Your task to perform on an android device: change notifications settings Image 0: 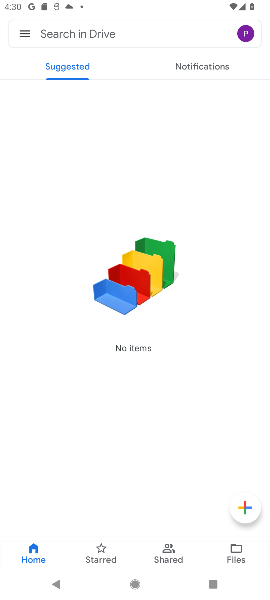
Step 0: press back button
Your task to perform on an android device: change notifications settings Image 1: 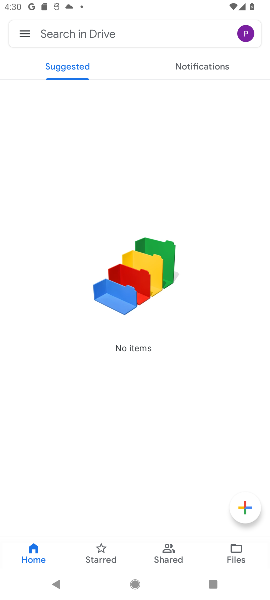
Step 1: press back button
Your task to perform on an android device: change notifications settings Image 2: 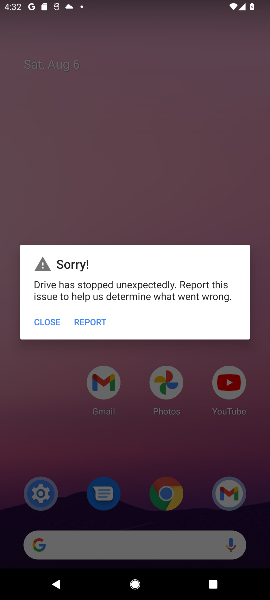
Step 2: click (52, 319)
Your task to perform on an android device: change notifications settings Image 3: 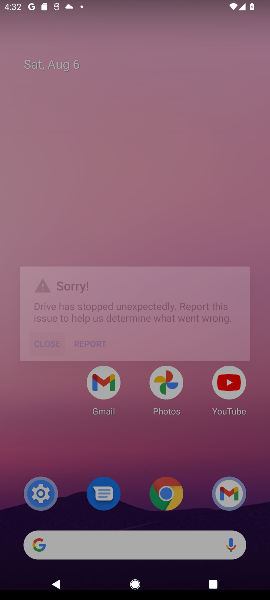
Step 3: press back button
Your task to perform on an android device: change notifications settings Image 4: 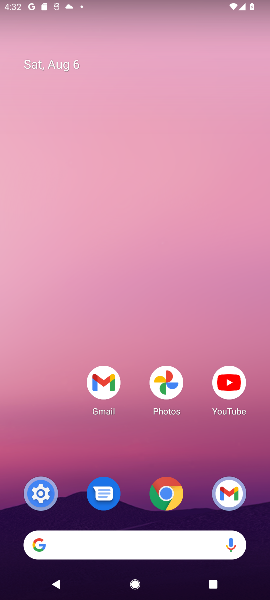
Step 4: press back button
Your task to perform on an android device: change notifications settings Image 5: 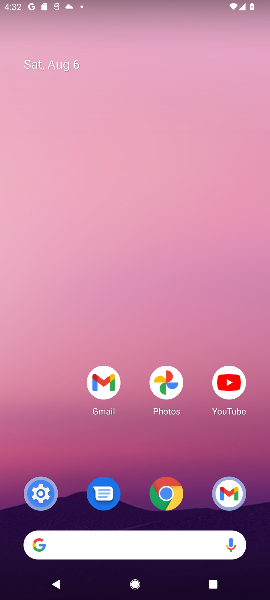
Step 5: press home button
Your task to perform on an android device: change notifications settings Image 6: 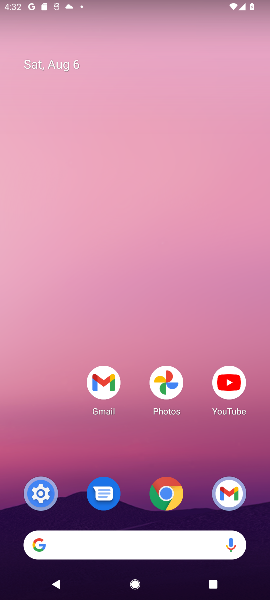
Step 6: drag from (135, 349) to (132, 50)
Your task to perform on an android device: change notifications settings Image 7: 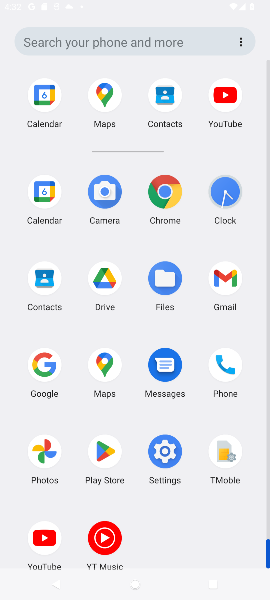
Step 7: drag from (124, 461) to (124, 17)
Your task to perform on an android device: change notifications settings Image 8: 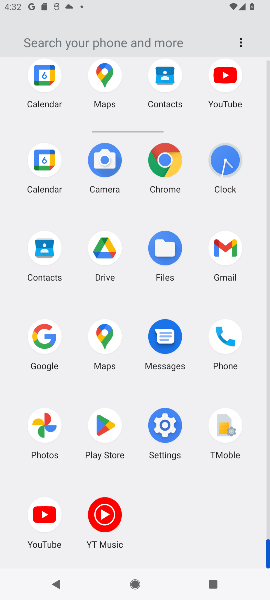
Step 8: drag from (137, 306) to (137, 120)
Your task to perform on an android device: change notifications settings Image 9: 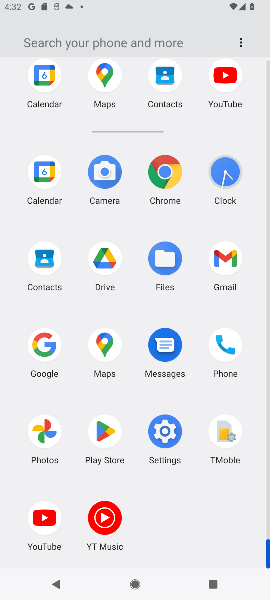
Step 9: click (156, 433)
Your task to perform on an android device: change notifications settings Image 10: 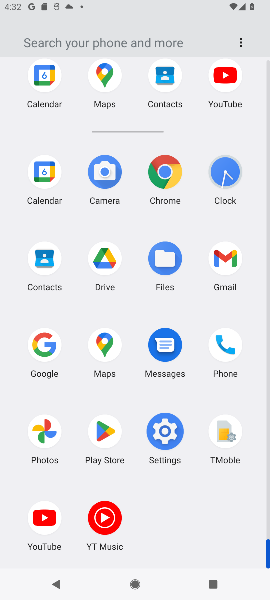
Step 10: click (156, 433)
Your task to perform on an android device: change notifications settings Image 11: 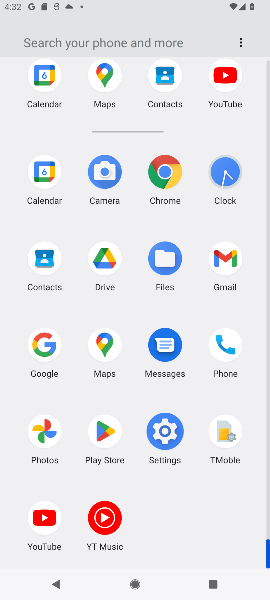
Step 11: click (156, 433)
Your task to perform on an android device: change notifications settings Image 12: 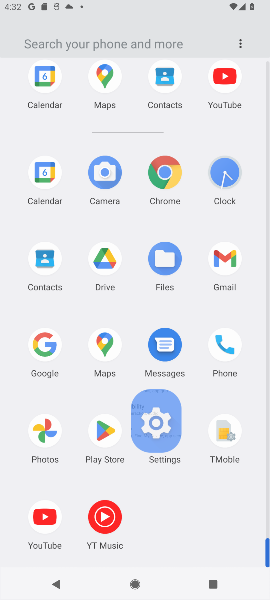
Step 12: click (157, 433)
Your task to perform on an android device: change notifications settings Image 13: 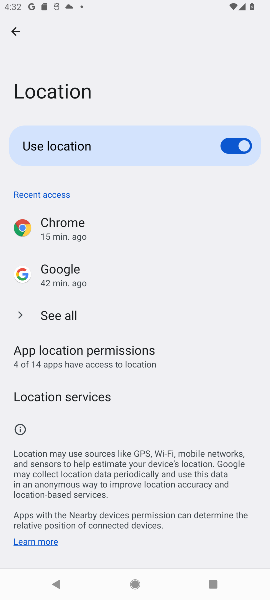
Step 13: click (17, 36)
Your task to perform on an android device: change notifications settings Image 14: 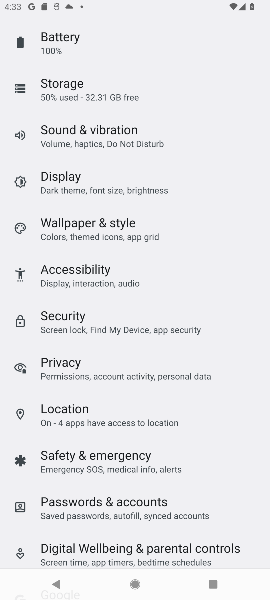
Step 14: drag from (81, 101) to (138, 450)
Your task to perform on an android device: change notifications settings Image 15: 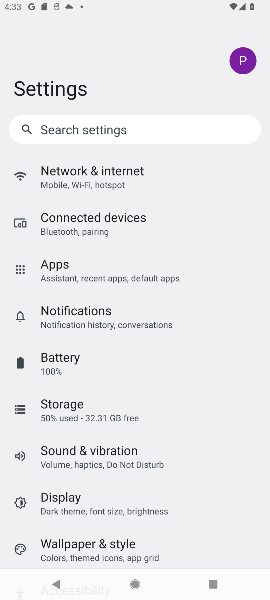
Step 15: drag from (127, 130) to (223, 284)
Your task to perform on an android device: change notifications settings Image 16: 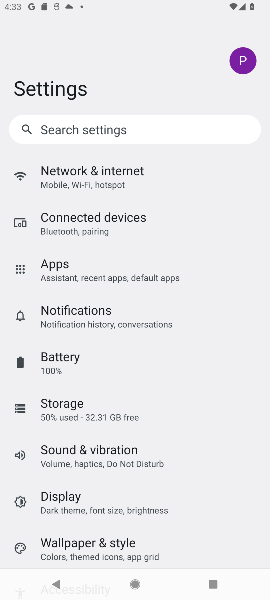
Step 16: click (74, 323)
Your task to perform on an android device: change notifications settings Image 17: 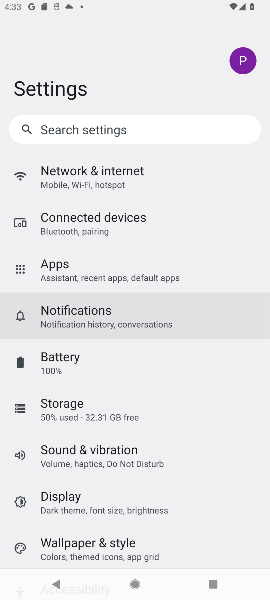
Step 17: click (82, 314)
Your task to perform on an android device: change notifications settings Image 18: 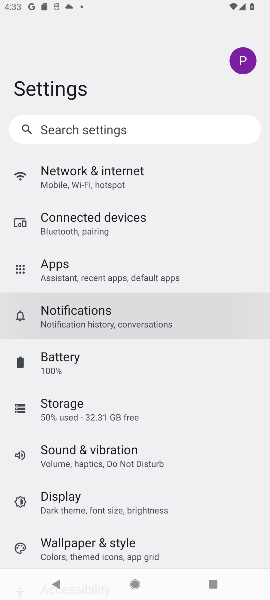
Step 18: click (82, 314)
Your task to perform on an android device: change notifications settings Image 19: 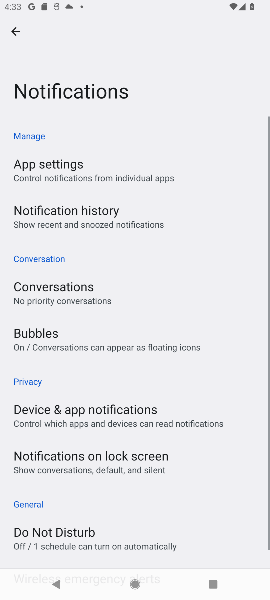
Step 19: click (84, 314)
Your task to perform on an android device: change notifications settings Image 20: 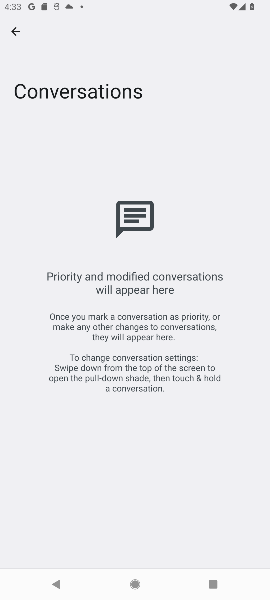
Step 20: task complete